Your task to perform on an android device: Set the phone to "Do not disturb". Image 0: 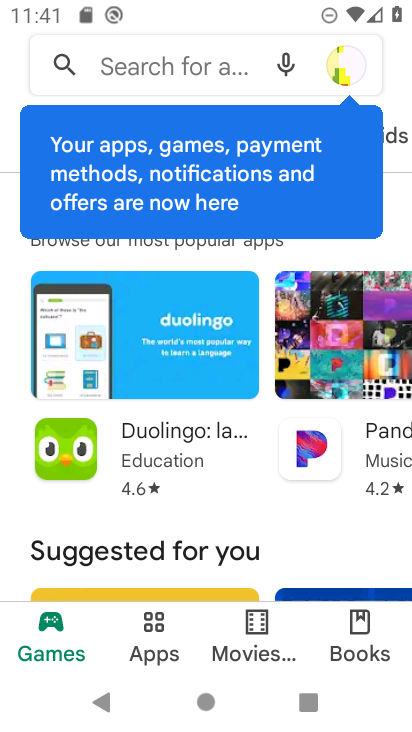
Step 0: press home button
Your task to perform on an android device: Set the phone to "Do not disturb". Image 1: 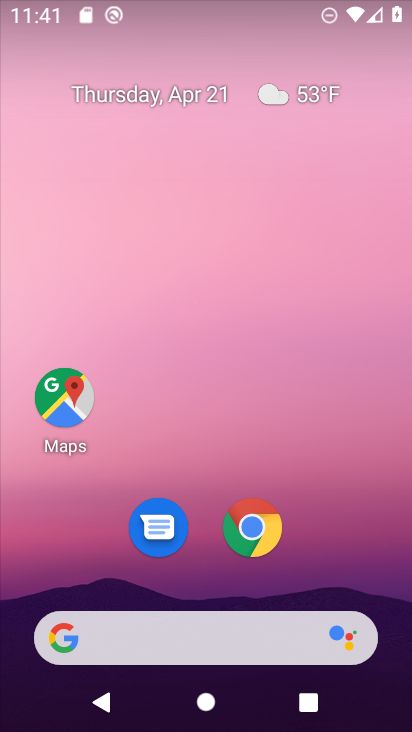
Step 1: drag from (351, 530) to (353, 168)
Your task to perform on an android device: Set the phone to "Do not disturb". Image 2: 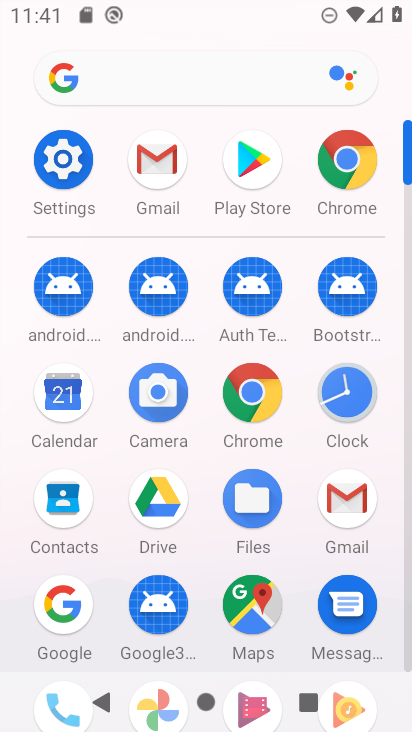
Step 2: click (73, 153)
Your task to perform on an android device: Set the phone to "Do not disturb". Image 3: 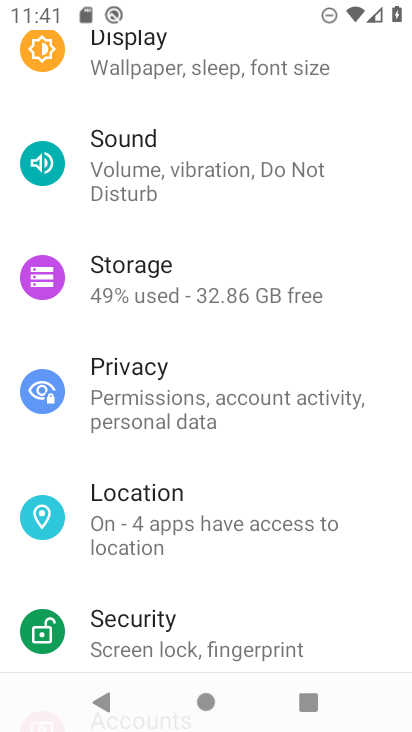
Step 3: drag from (381, 289) to (374, 378)
Your task to perform on an android device: Set the phone to "Do not disturb". Image 4: 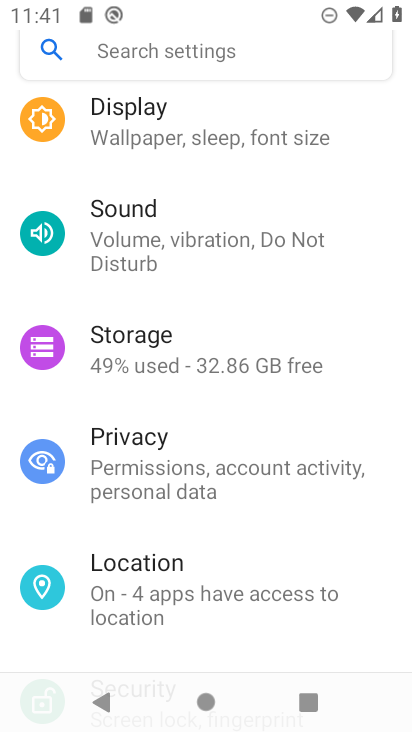
Step 4: drag from (371, 246) to (378, 390)
Your task to perform on an android device: Set the phone to "Do not disturb". Image 5: 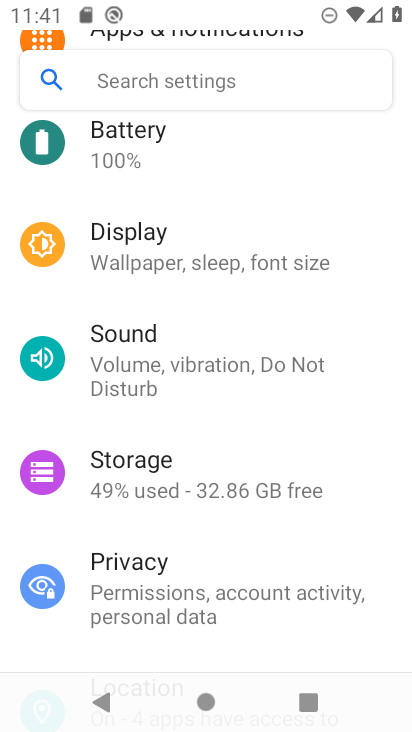
Step 5: drag from (379, 244) to (373, 373)
Your task to perform on an android device: Set the phone to "Do not disturb". Image 6: 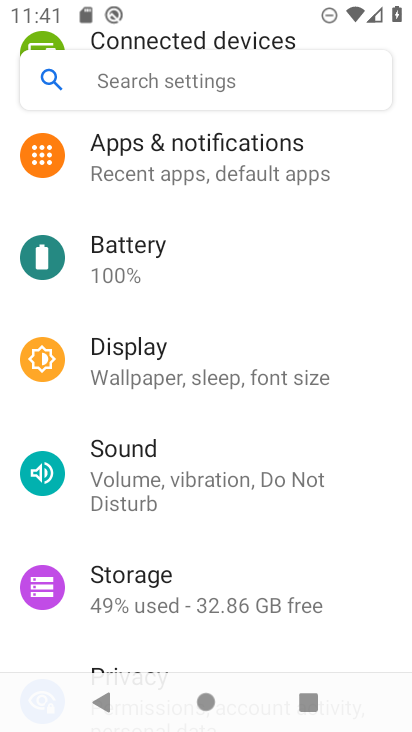
Step 6: drag from (373, 236) to (388, 378)
Your task to perform on an android device: Set the phone to "Do not disturb". Image 7: 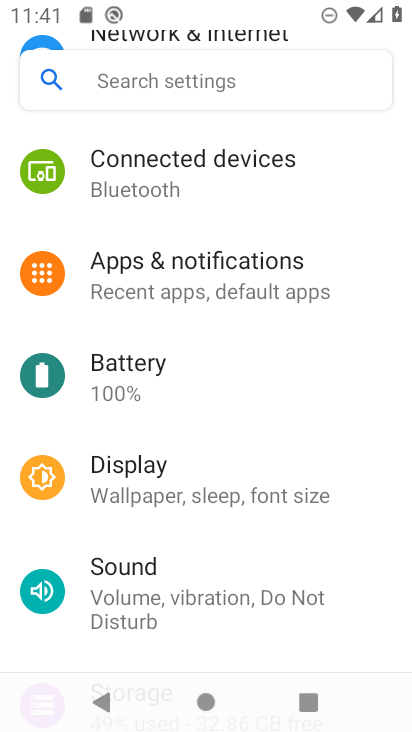
Step 7: drag from (377, 220) to (366, 372)
Your task to perform on an android device: Set the phone to "Do not disturb". Image 8: 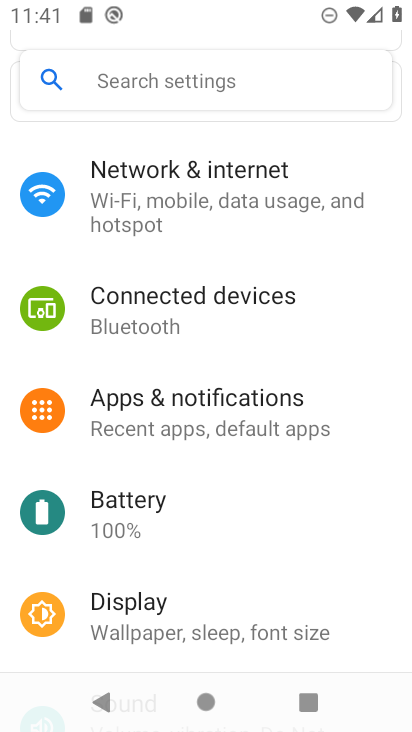
Step 8: drag from (364, 526) to (376, 451)
Your task to perform on an android device: Set the phone to "Do not disturb". Image 9: 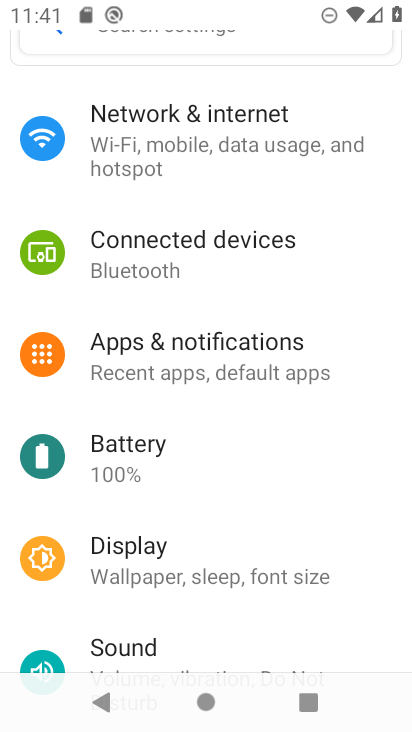
Step 9: drag from (345, 614) to (364, 390)
Your task to perform on an android device: Set the phone to "Do not disturb". Image 10: 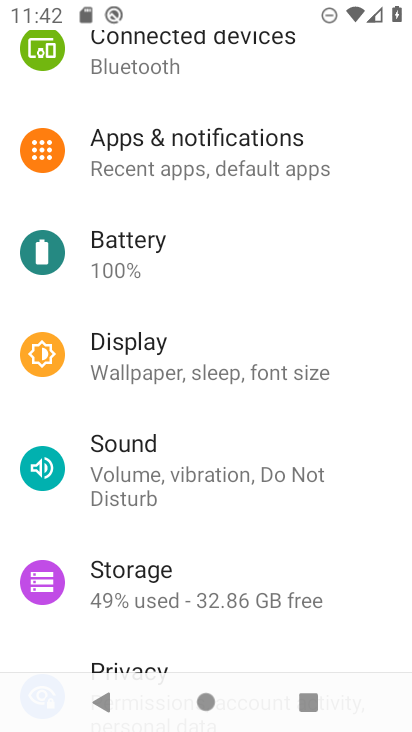
Step 10: click (285, 481)
Your task to perform on an android device: Set the phone to "Do not disturb". Image 11: 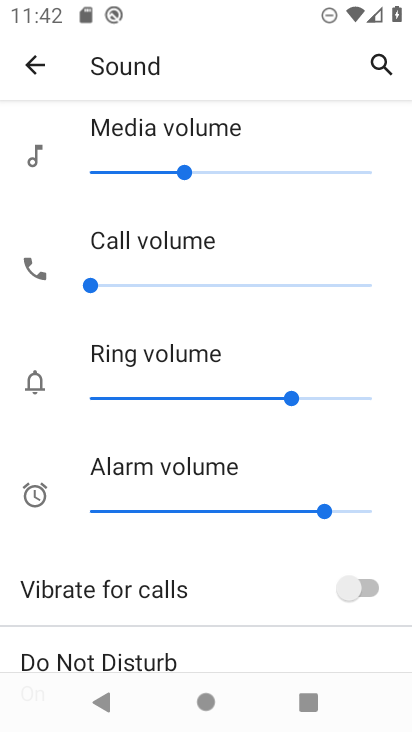
Step 11: drag from (277, 585) to (293, 421)
Your task to perform on an android device: Set the phone to "Do not disturb". Image 12: 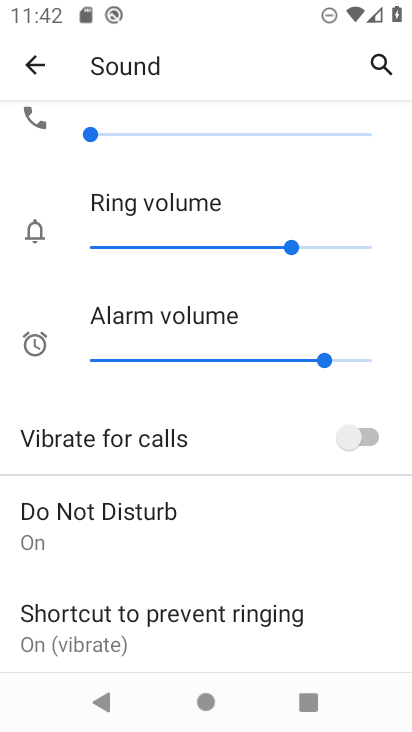
Step 12: drag from (254, 524) to (274, 390)
Your task to perform on an android device: Set the phone to "Do not disturb". Image 13: 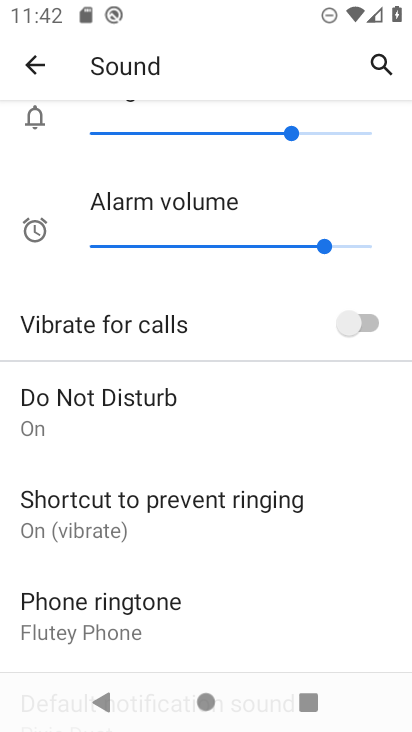
Step 13: click (101, 405)
Your task to perform on an android device: Set the phone to "Do not disturb". Image 14: 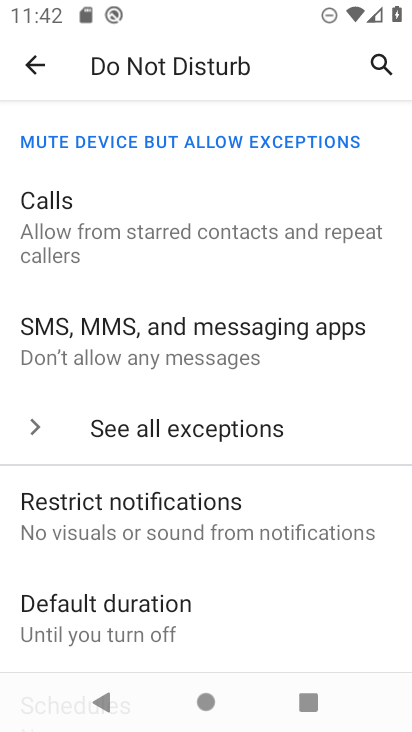
Step 14: task complete